Your task to perform on an android device: toggle improve location accuracy Image 0: 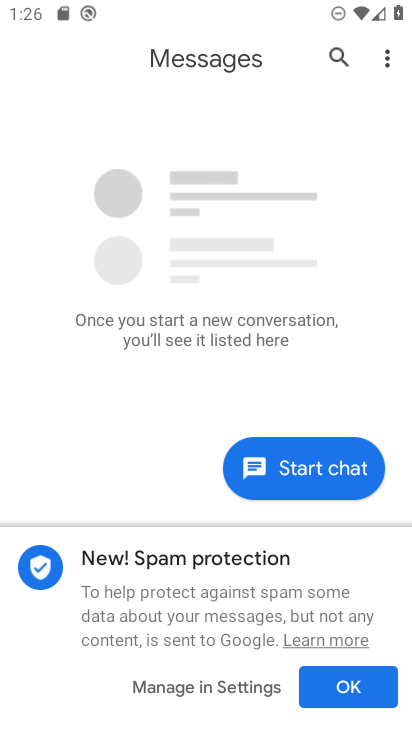
Step 0: press home button
Your task to perform on an android device: toggle improve location accuracy Image 1: 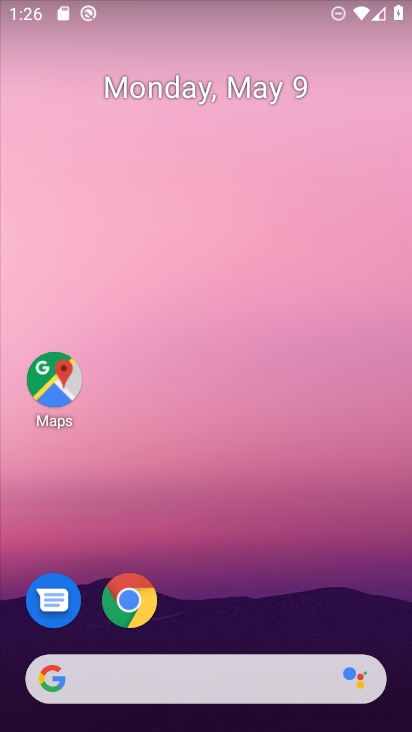
Step 1: drag from (249, 529) to (370, 179)
Your task to perform on an android device: toggle improve location accuracy Image 2: 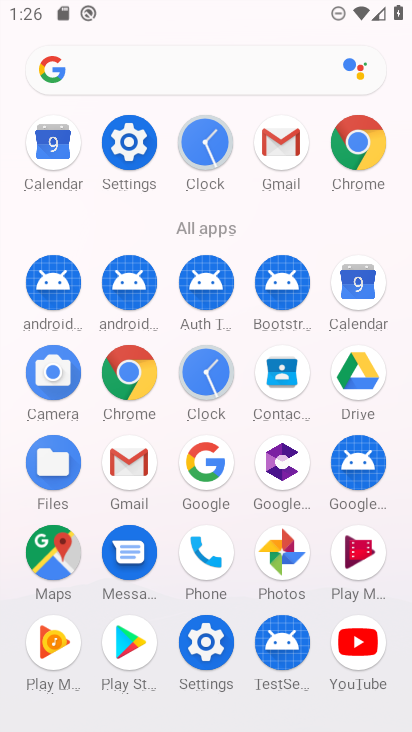
Step 2: drag from (203, 331) to (347, 124)
Your task to perform on an android device: toggle improve location accuracy Image 3: 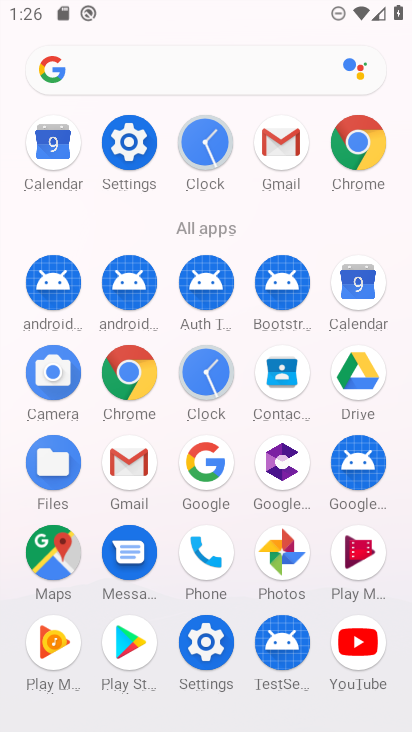
Step 3: click (131, 151)
Your task to perform on an android device: toggle improve location accuracy Image 4: 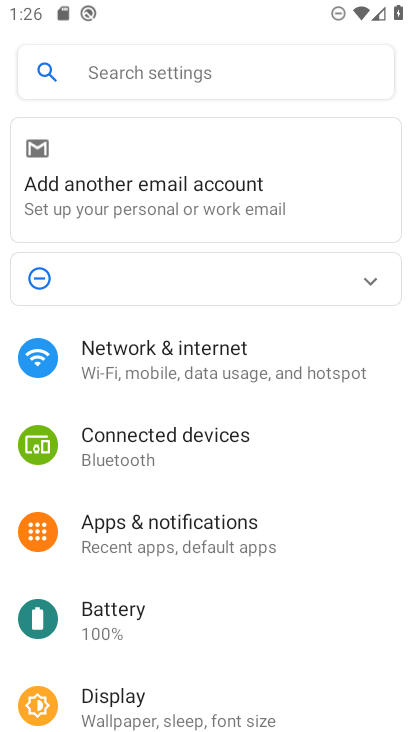
Step 4: drag from (194, 636) to (406, 155)
Your task to perform on an android device: toggle improve location accuracy Image 5: 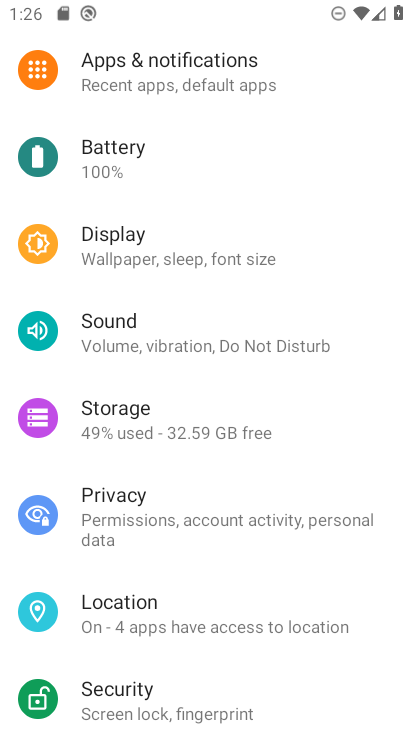
Step 5: drag from (143, 602) to (294, 216)
Your task to perform on an android device: toggle improve location accuracy Image 6: 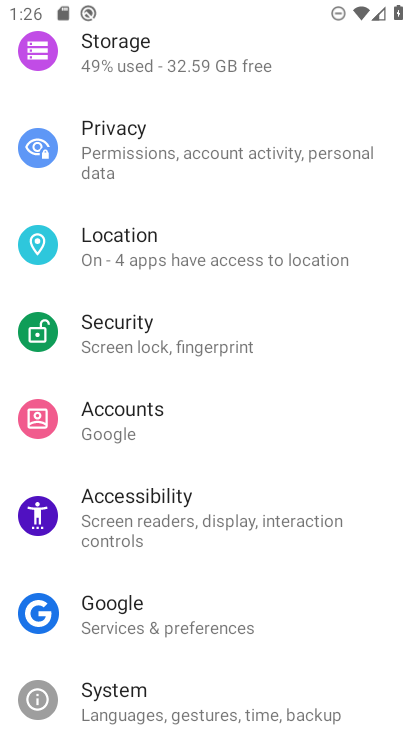
Step 6: click (137, 233)
Your task to perform on an android device: toggle improve location accuracy Image 7: 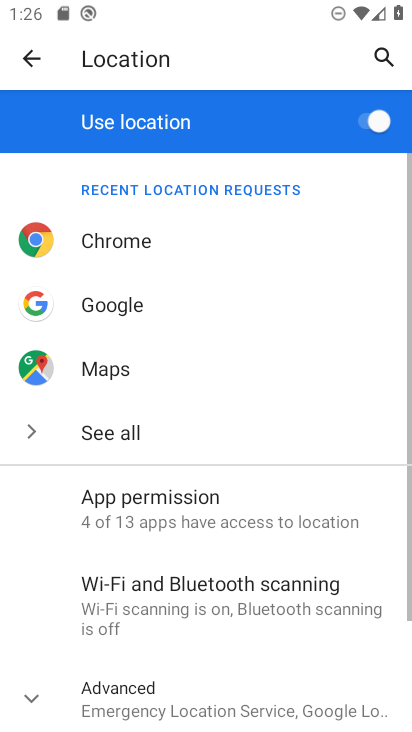
Step 7: click (117, 684)
Your task to perform on an android device: toggle improve location accuracy Image 8: 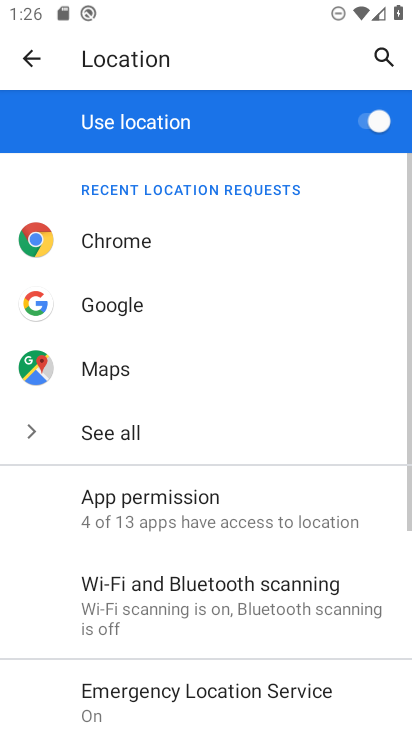
Step 8: drag from (207, 669) to (378, 286)
Your task to perform on an android device: toggle improve location accuracy Image 9: 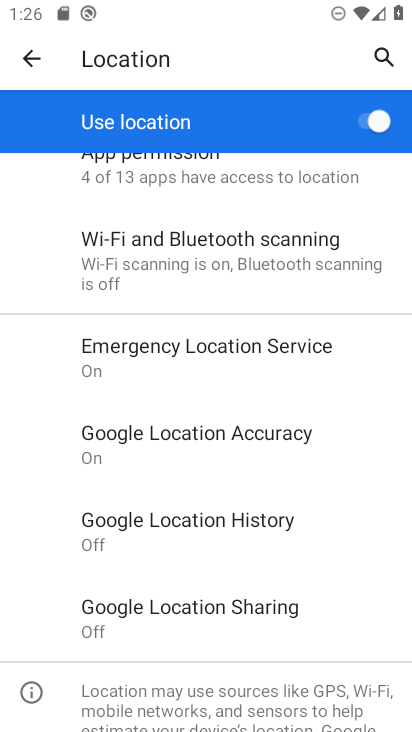
Step 9: click (223, 438)
Your task to perform on an android device: toggle improve location accuracy Image 10: 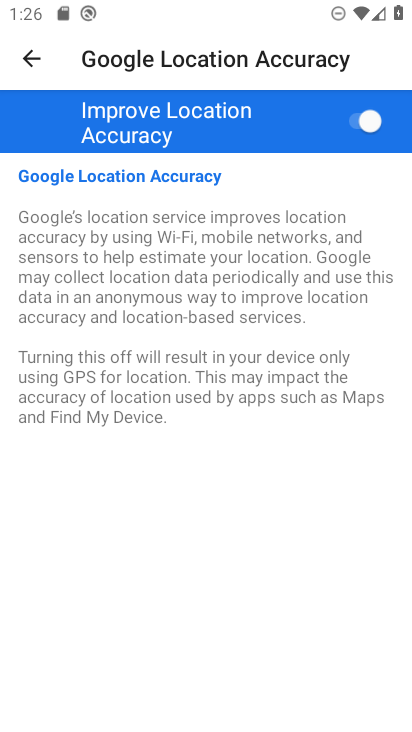
Step 10: click (354, 122)
Your task to perform on an android device: toggle improve location accuracy Image 11: 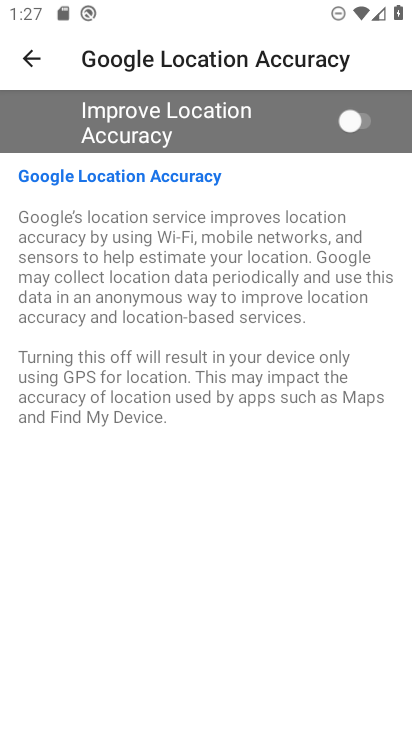
Step 11: task complete